Your task to perform on an android device: toggle location history Image 0: 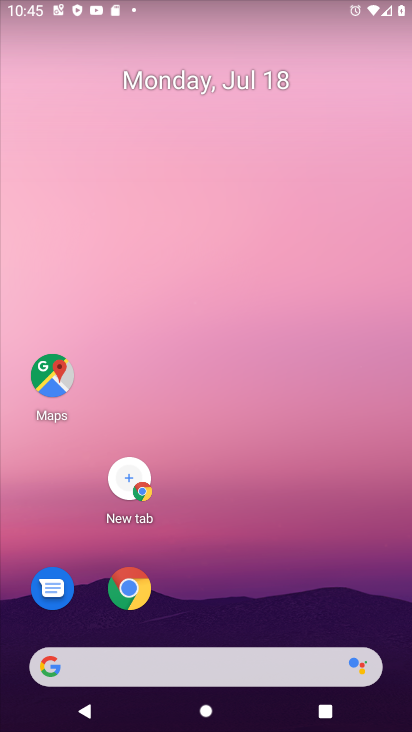
Step 0: drag from (181, 629) to (188, 165)
Your task to perform on an android device: toggle location history Image 1: 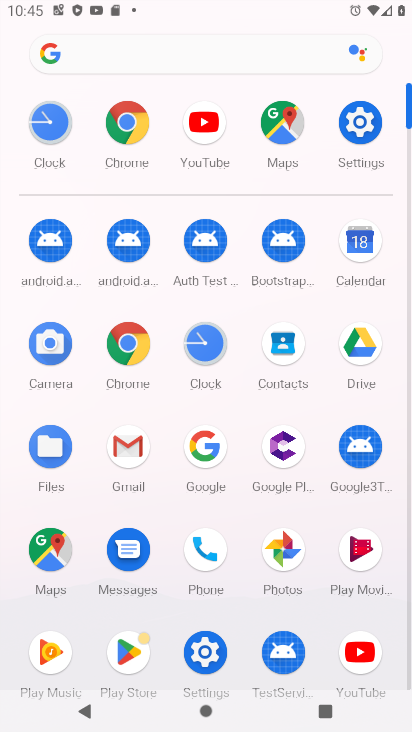
Step 1: click (366, 121)
Your task to perform on an android device: toggle location history Image 2: 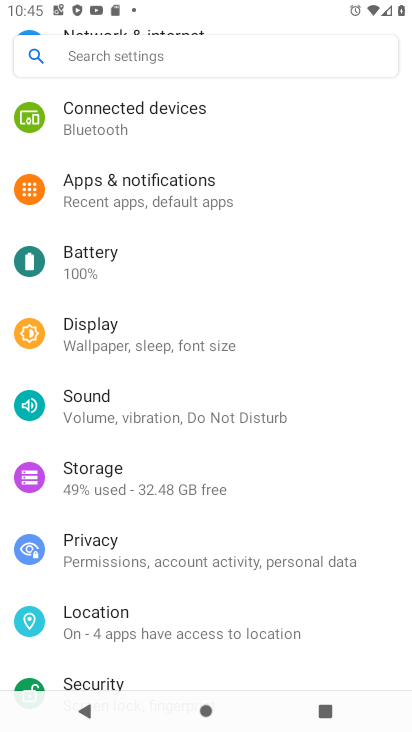
Step 2: click (128, 606)
Your task to perform on an android device: toggle location history Image 3: 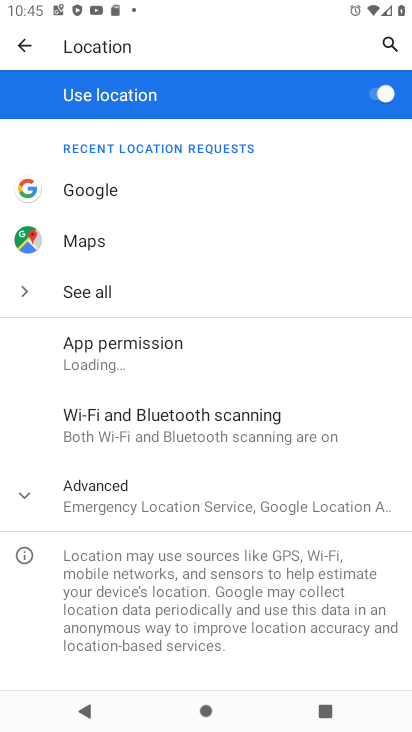
Step 3: click (112, 485)
Your task to perform on an android device: toggle location history Image 4: 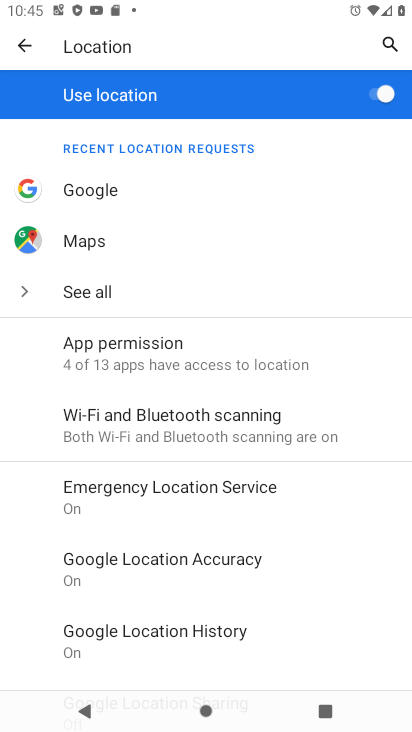
Step 4: click (213, 626)
Your task to perform on an android device: toggle location history Image 5: 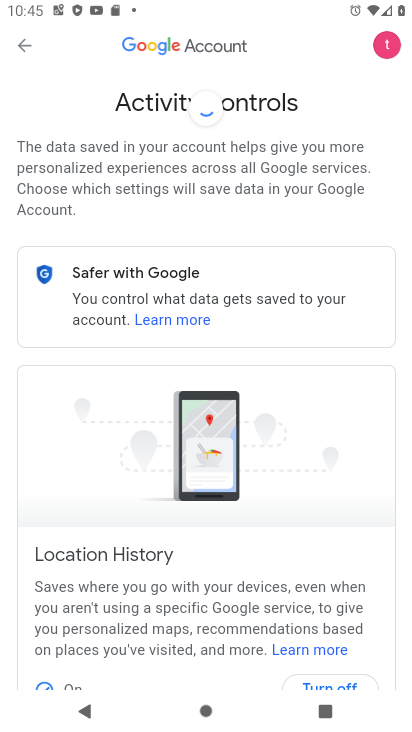
Step 5: drag from (221, 571) to (189, 139)
Your task to perform on an android device: toggle location history Image 6: 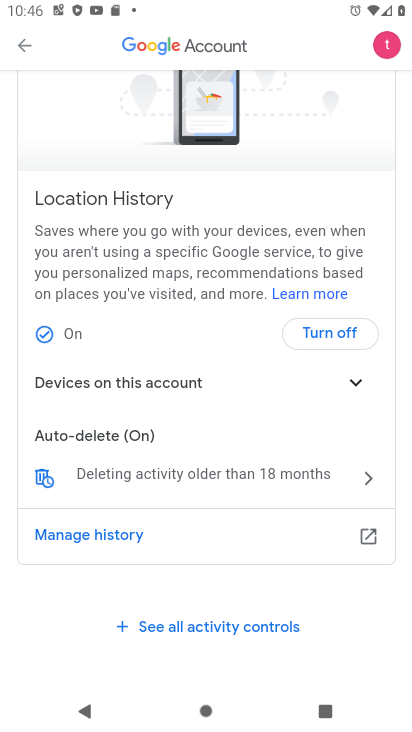
Step 6: click (344, 343)
Your task to perform on an android device: toggle location history Image 7: 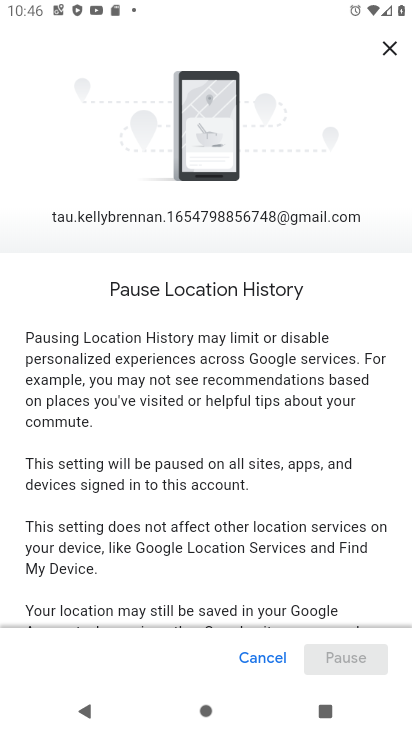
Step 7: drag from (281, 598) to (220, 49)
Your task to perform on an android device: toggle location history Image 8: 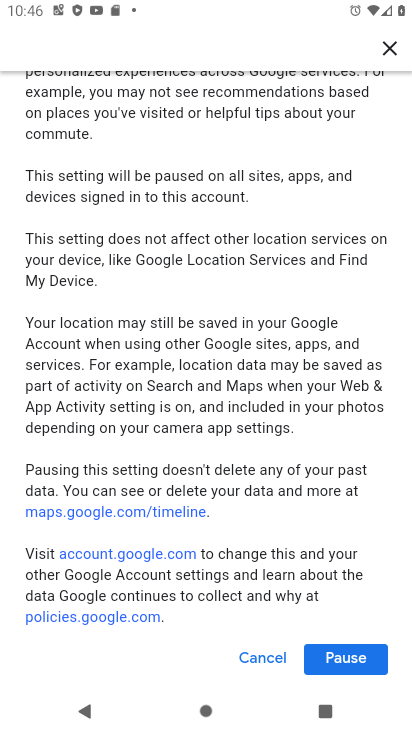
Step 8: click (331, 646)
Your task to perform on an android device: toggle location history Image 9: 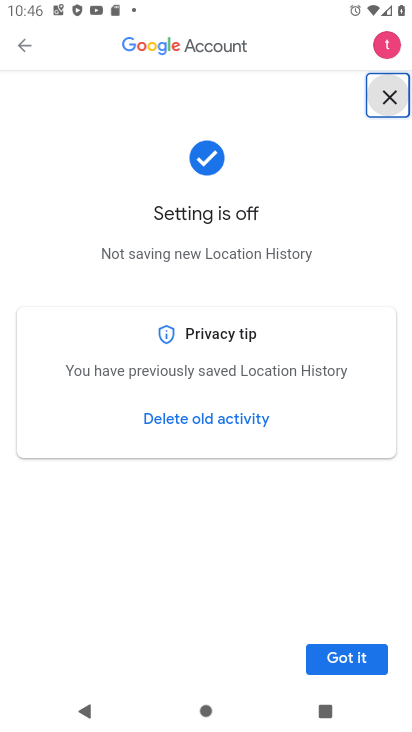
Step 9: click (373, 659)
Your task to perform on an android device: toggle location history Image 10: 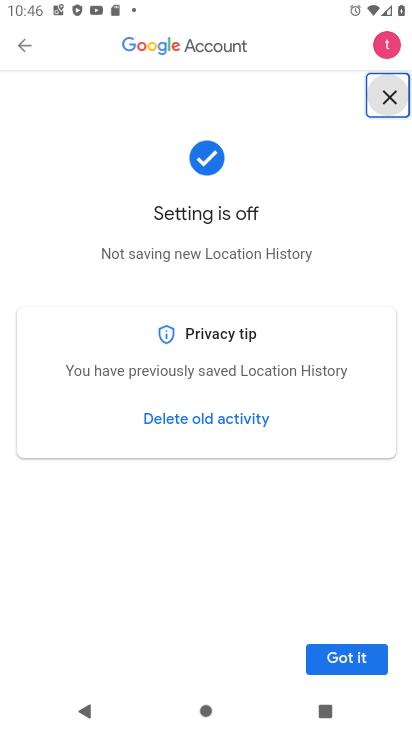
Step 10: click (373, 659)
Your task to perform on an android device: toggle location history Image 11: 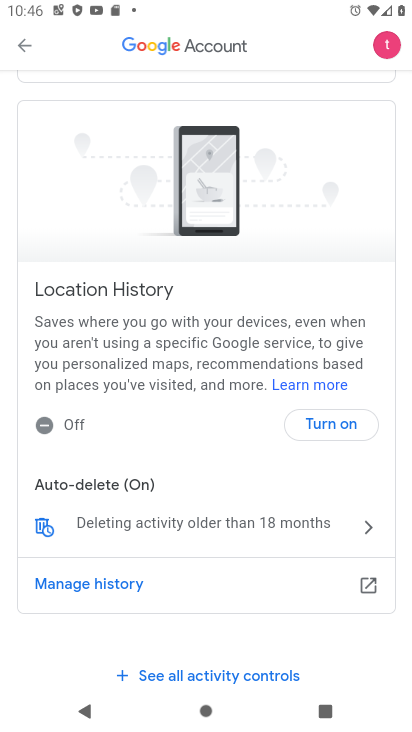
Step 11: task complete